Your task to perform on an android device: turn on notifications settings in the gmail app Image 0: 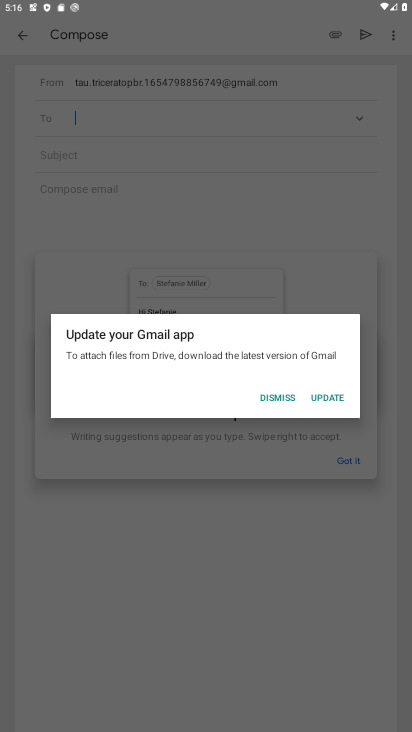
Step 0: press home button
Your task to perform on an android device: turn on notifications settings in the gmail app Image 1: 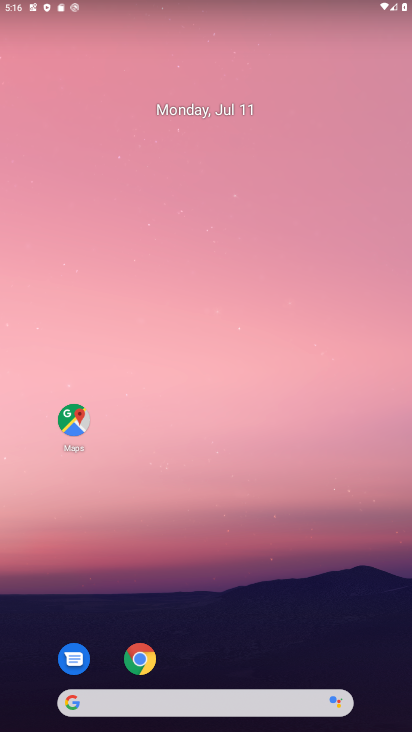
Step 1: drag from (347, 669) to (297, 87)
Your task to perform on an android device: turn on notifications settings in the gmail app Image 2: 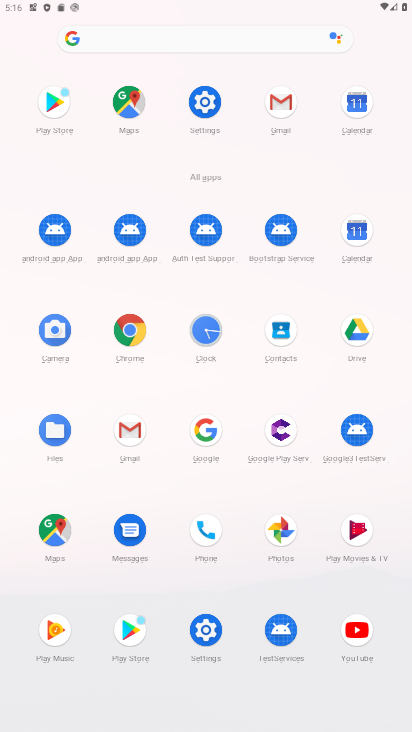
Step 2: click (130, 434)
Your task to perform on an android device: turn on notifications settings in the gmail app Image 3: 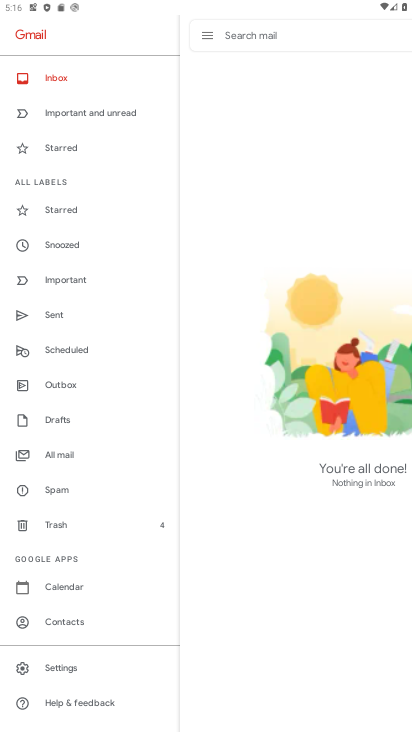
Step 3: click (67, 665)
Your task to perform on an android device: turn on notifications settings in the gmail app Image 4: 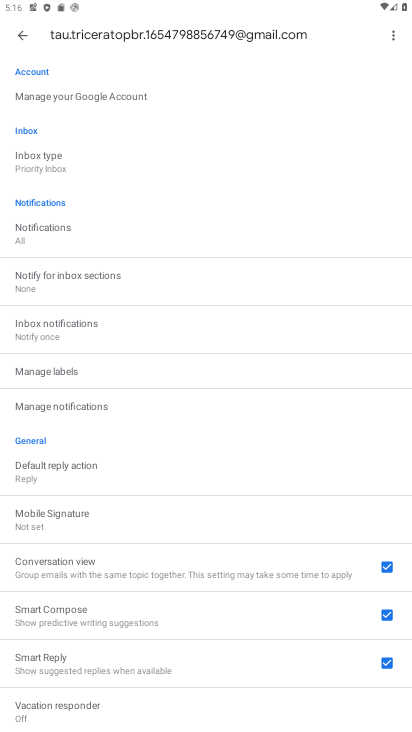
Step 4: click (51, 411)
Your task to perform on an android device: turn on notifications settings in the gmail app Image 5: 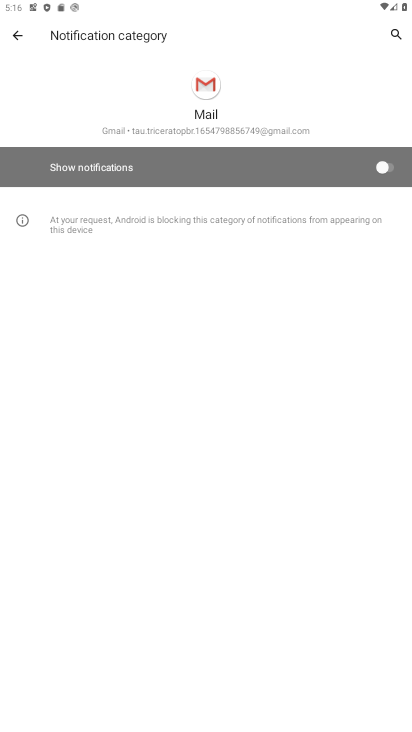
Step 5: click (388, 165)
Your task to perform on an android device: turn on notifications settings in the gmail app Image 6: 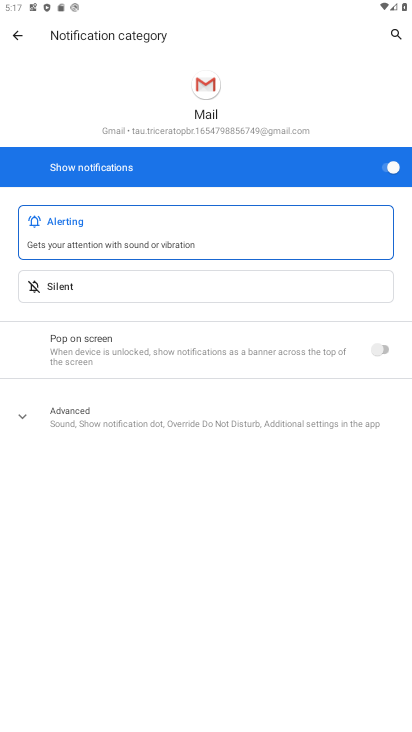
Step 6: task complete